Your task to perform on an android device: Do I have any events today? Image 0: 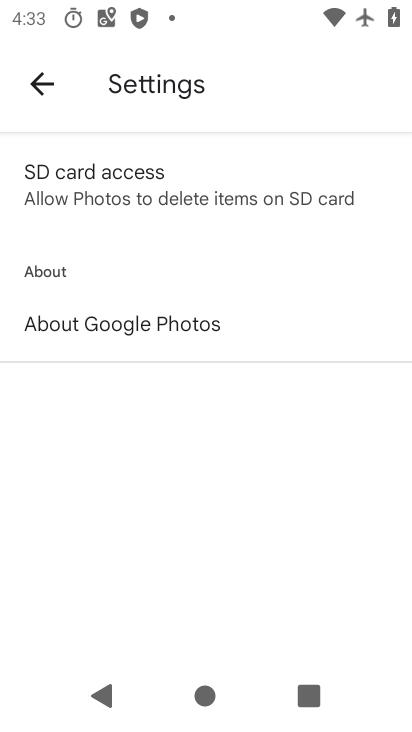
Step 0: press home button
Your task to perform on an android device: Do I have any events today? Image 1: 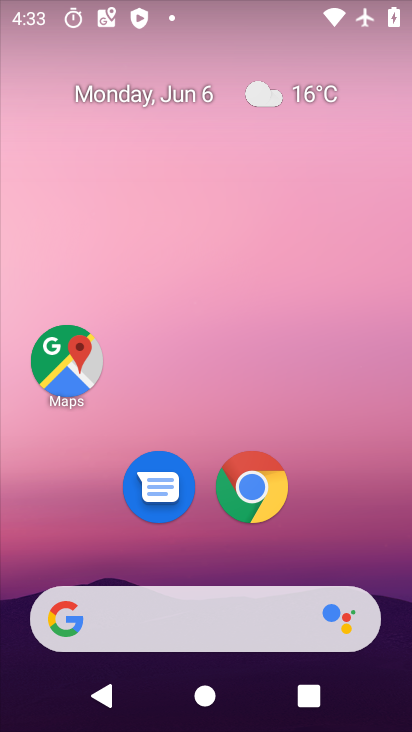
Step 1: drag from (337, 304) to (337, 52)
Your task to perform on an android device: Do I have any events today? Image 2: 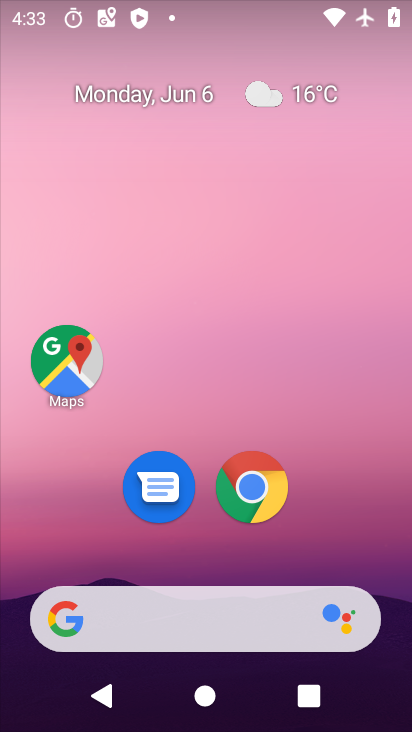
Step 2: drag from (333, 409) to (327, 91)
Your task to perform on an android device: Do I have any events today? Image 3: 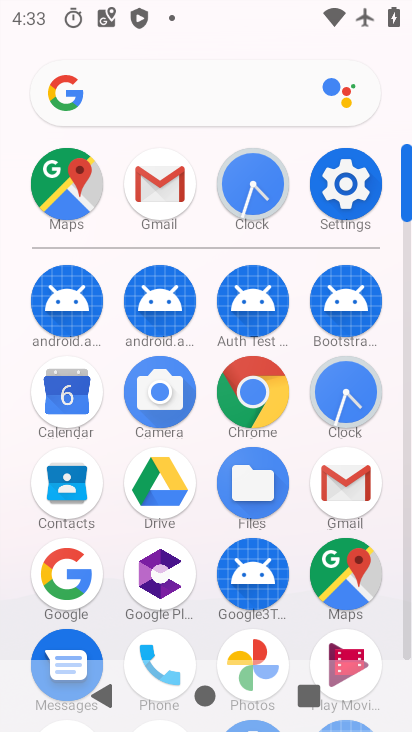
Step 3: click (348, 376)
Your task to perform on an android device: Do I have any events today? Image 4: 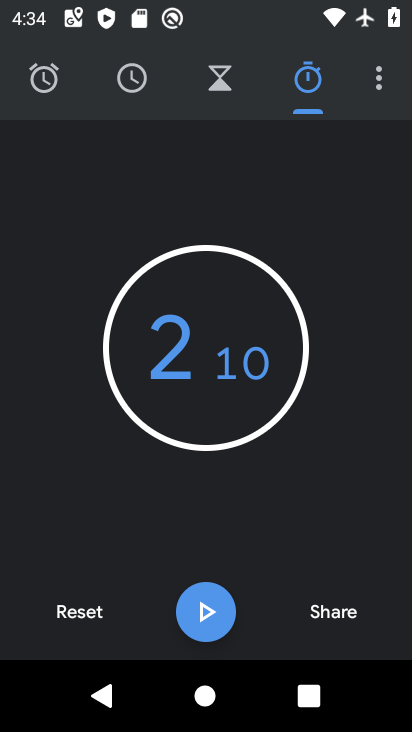
Step 4: press home button
Your task to perform on an android device: Do I have any events today? Image 5: 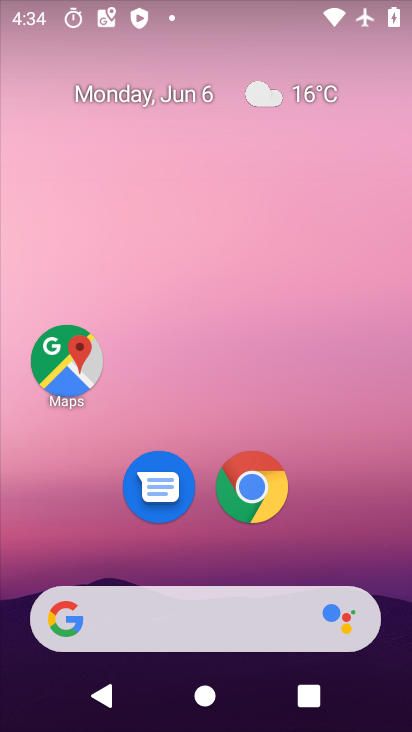
Step 5: drag from (347, 495) to (352, 43)
Your task to perform on an android device: Do I have any events today? Image 6: 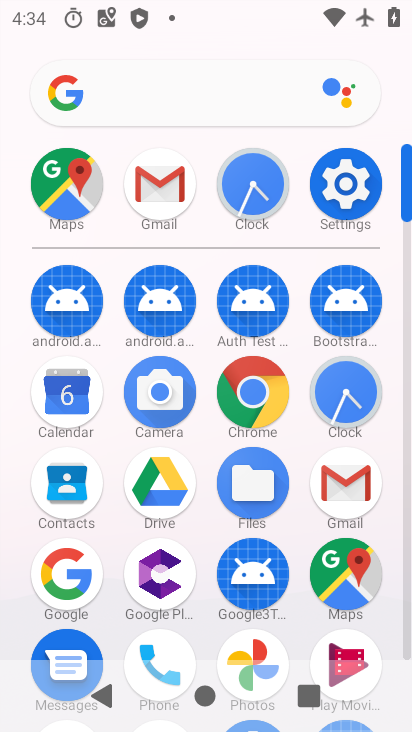
Step 6: click (79, 397)
Your task to perform on an android device: Do I have any events today? Image 7: 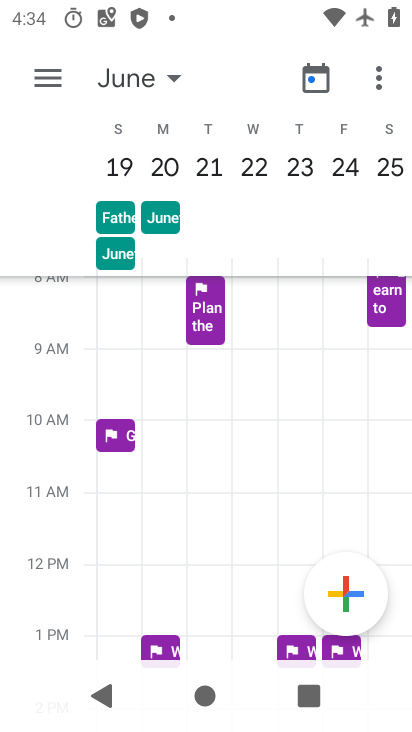
Step 7: click (130, 79)
Your task to perform on an android device: Do I have any events today? Image 8: 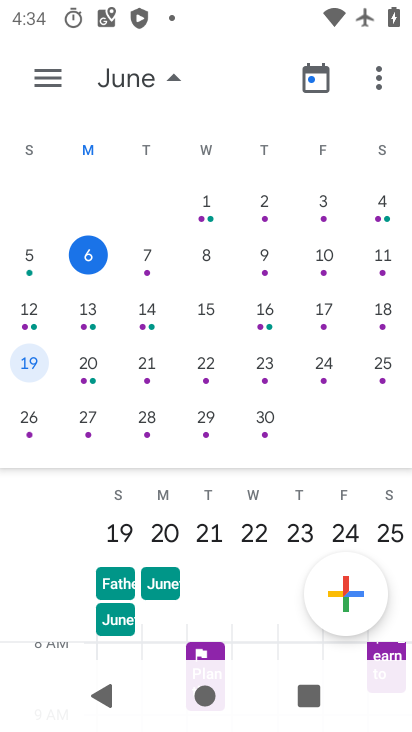
Step 8: click (30, 293)
Your task to perform on an android device: Do I have any events today? Image 9: 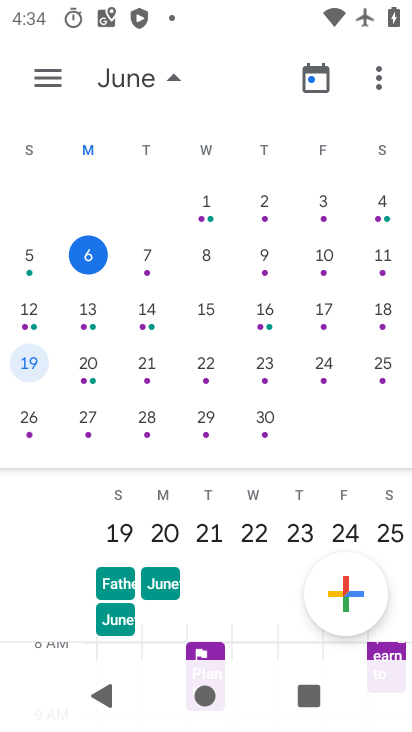
Step 9: drag from (48, 282) to (378, 288)
Your task to perform on an android device: Do I have any events today? Image 10: 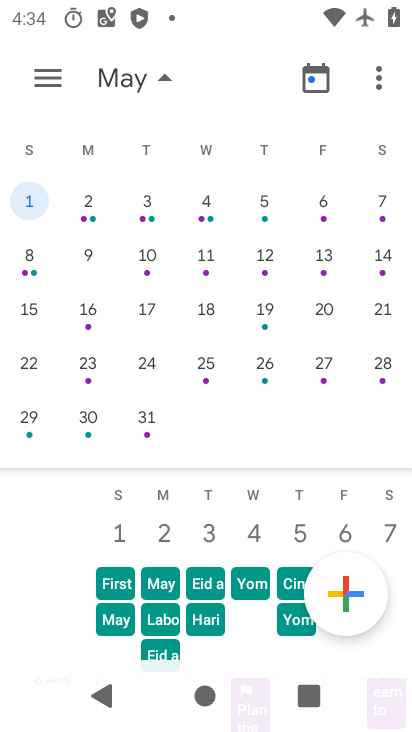
Step 10: drag from (362, 274) to (116, 268)
Your task to perform on an android device: Do I have any events today? Image 11: 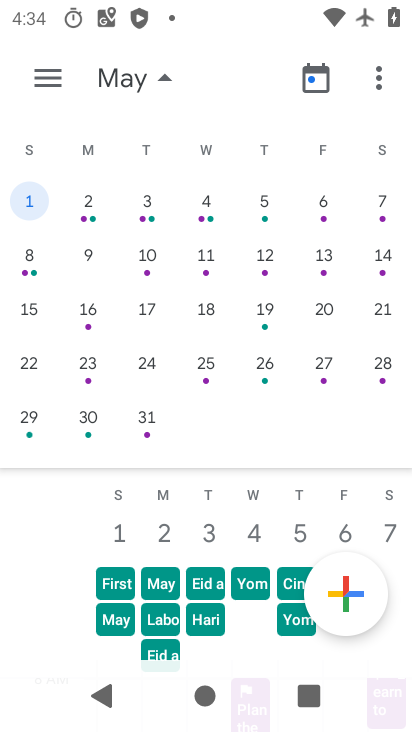
Step 11: drag from (353, 281) to (28, 280)
Your task to perform on an android device: Do I have any events today? Image 12: 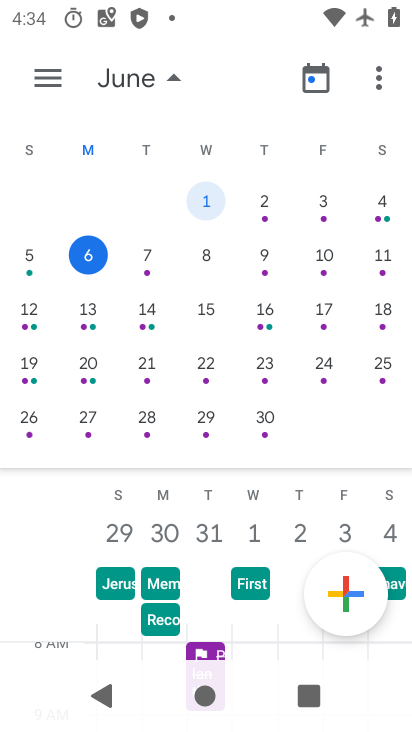
Step 12: click (75, 253)
Your task to perform on an android device: Do I have any events today? Image 13: 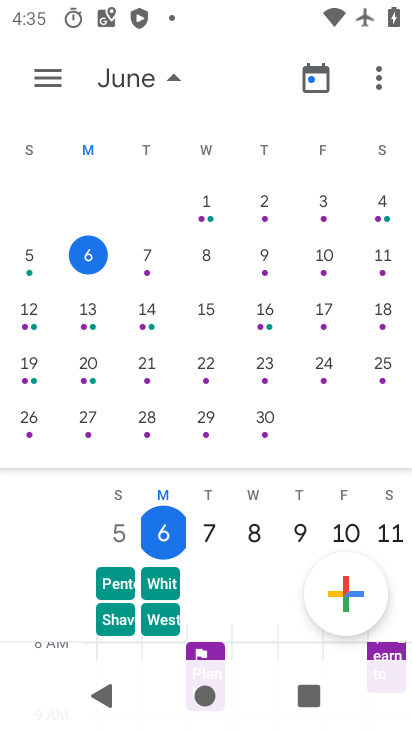
Step 13: drag from (193, 514) to (256, 115)
Your task to perform on an android device: Do I have any events today? Image 14: 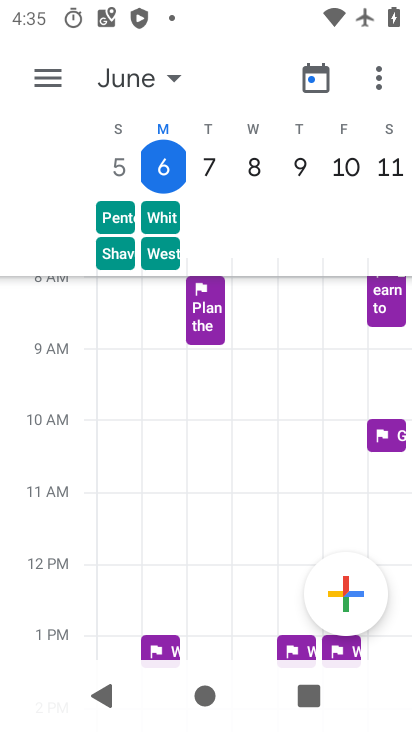
Step 14: click (166, 152)
Your task to perform on an android device: Do I have any events today? Image 15: 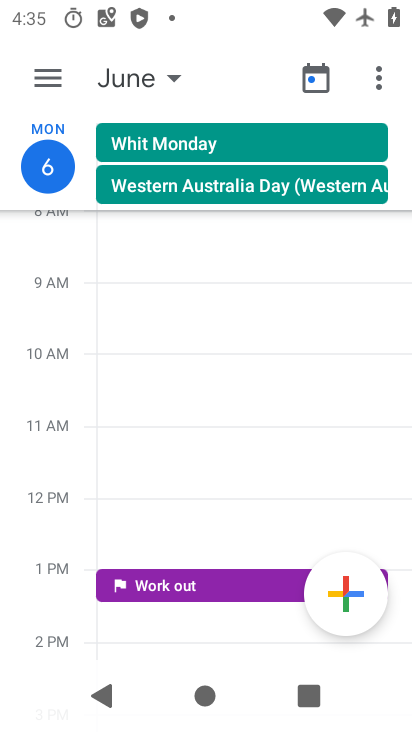
Step 15: task complete